Your task to perform on an android device: open the mobile data screen to see how much data has been used Image 0: 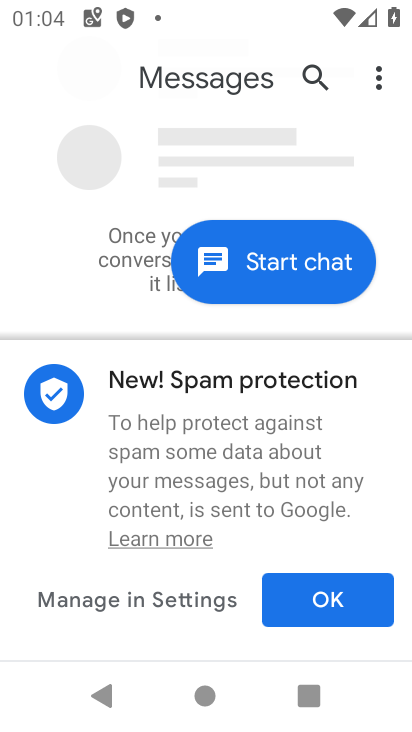
Step 0: press home button
Your task to perform on an android device: open the mobile data screen to see how much data has been used Image 1: 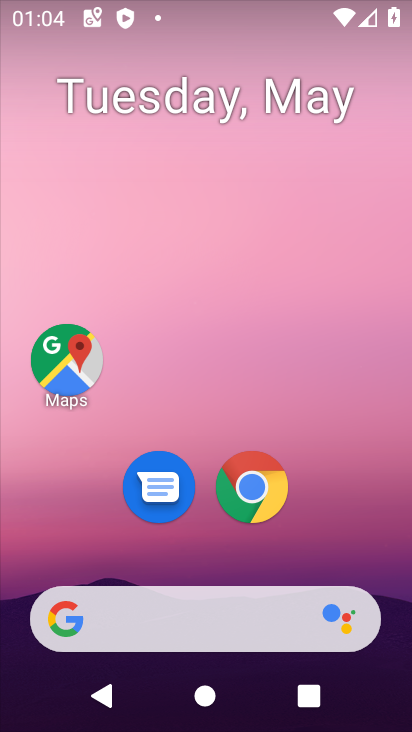
Step 1: drag from (335, 528) to (312, 101)
Your task to perform on an android device: open the mobile data screen to see how much data has been used Image 2: 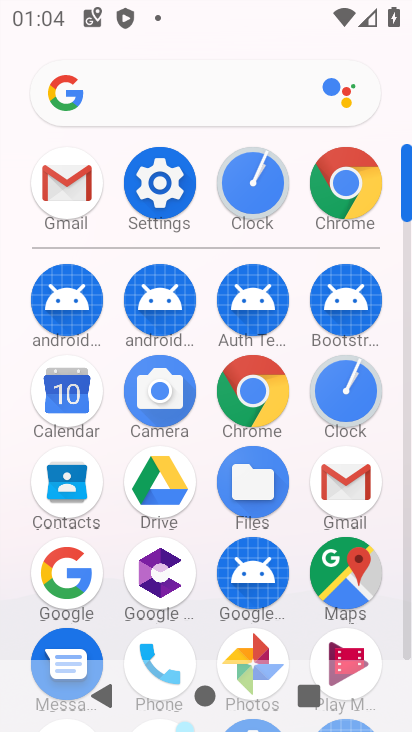
Step 2: click (155, 185)
Your task to perform on an android device: open the mobile data screen to see how much data has been used Image 3: 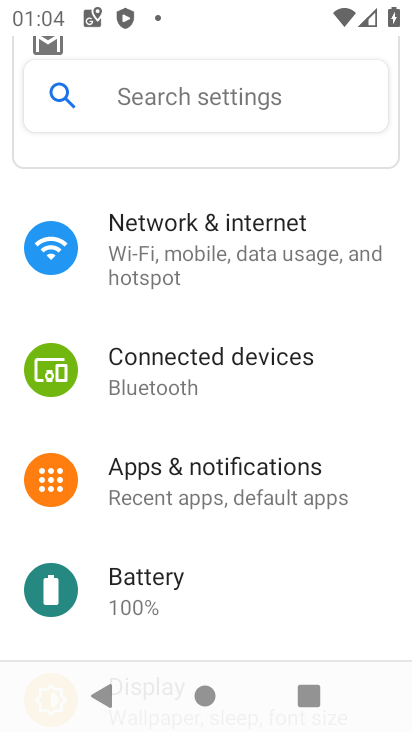
Step 3: drag from (252, 233) to (254, 425)
Your task to perform on an android device: open the mobile data screen to see how much data has been used Image 4: 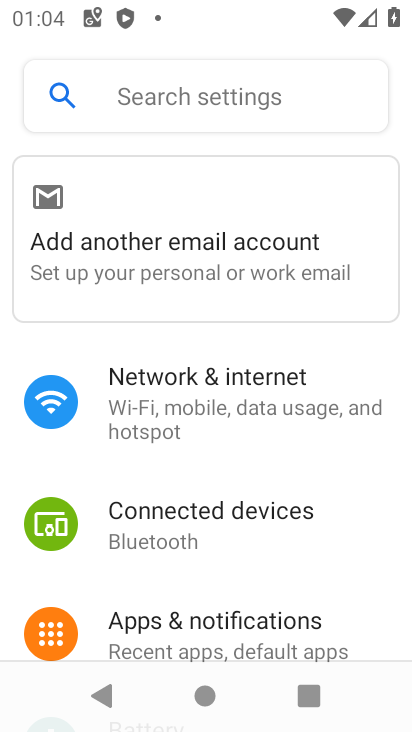
Step 4: click (221, 354)
Your task to perform on an android device: open the mobile data screen to see how much data has been used Image 5: 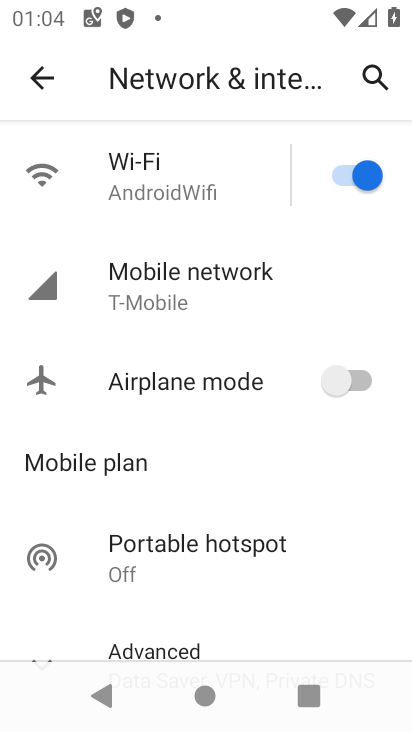
Step 5: click (209, 306)
Your task to perform on an android device: open the mobile data screen to see how much data has been used Image 6: 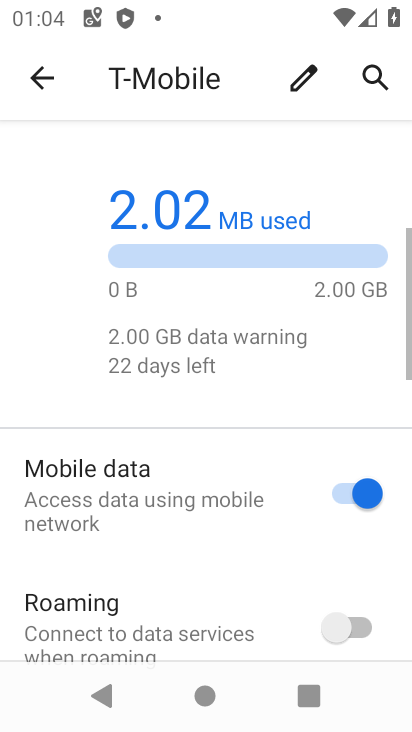
Step 6: drag from (238, 550) to (247, 255)
Your task to perform on an android device: open the mobile data screen to see how much data has been used Image 7: 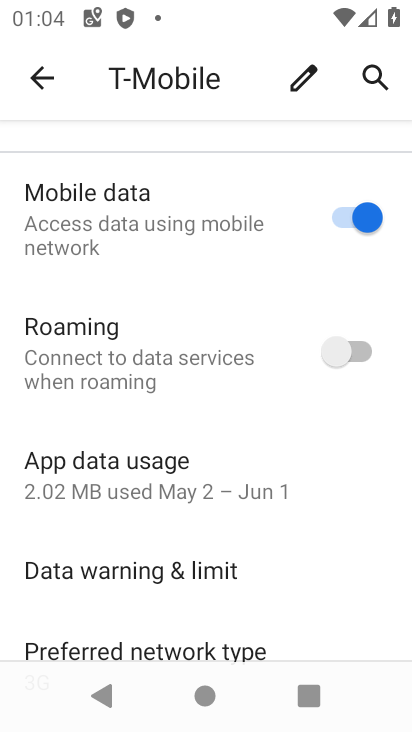
Step 7: click (213, 485)
Your task to perform on an android device: open the mobile data screen to see how much data has been used Image 8: 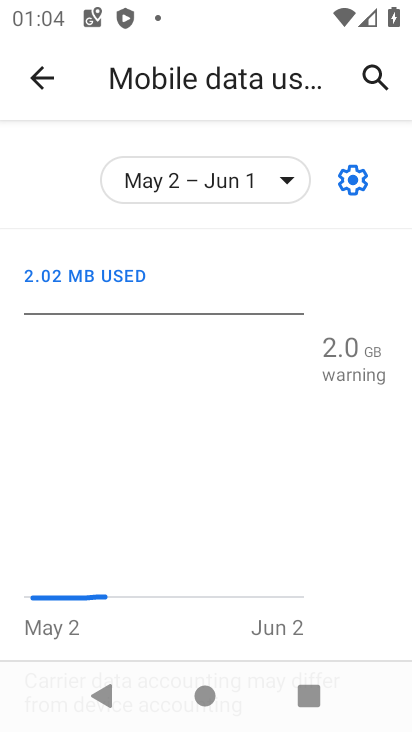
Step 8: task complete